Your task to perform on an android device: Clear all items from cart on amazon.com. Image 0: 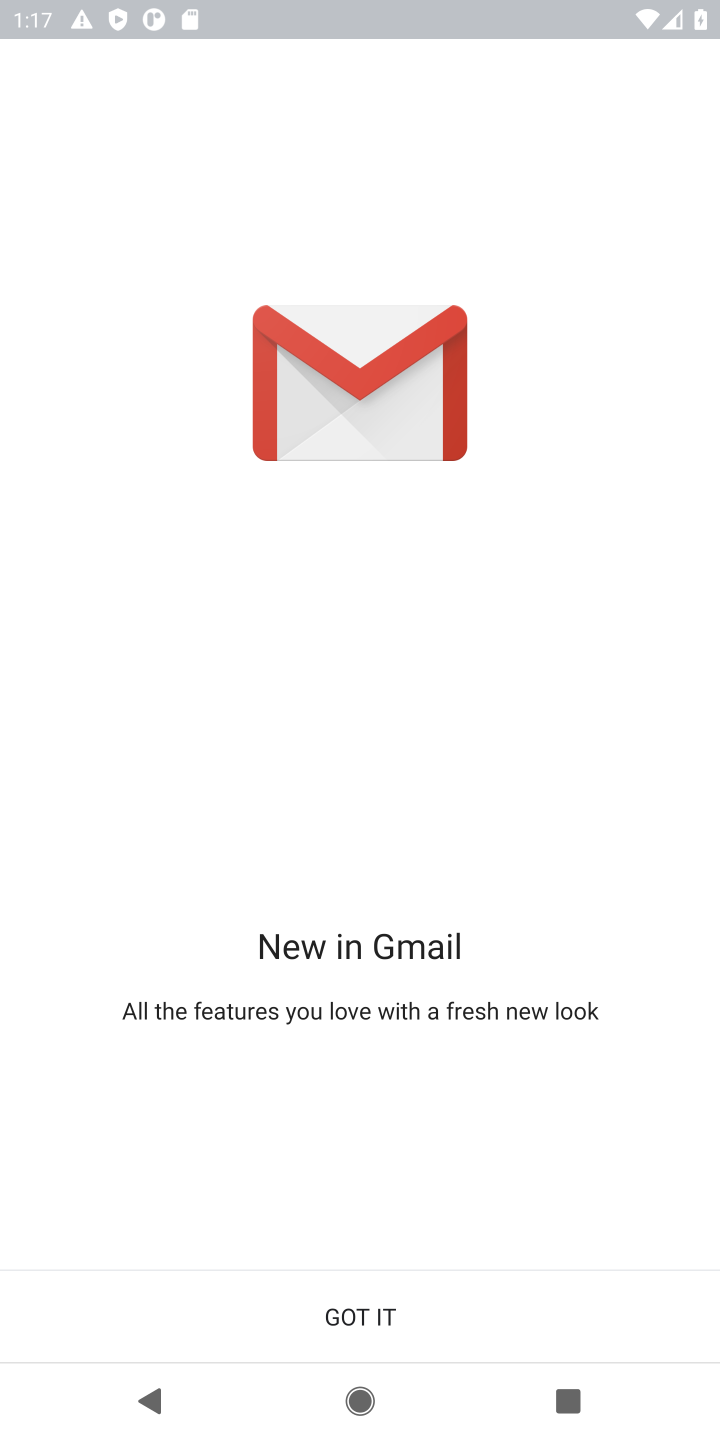
Step 0: press home button
Your task to perform on an android device: Clear all items from cart on amazon.com. Image 1: 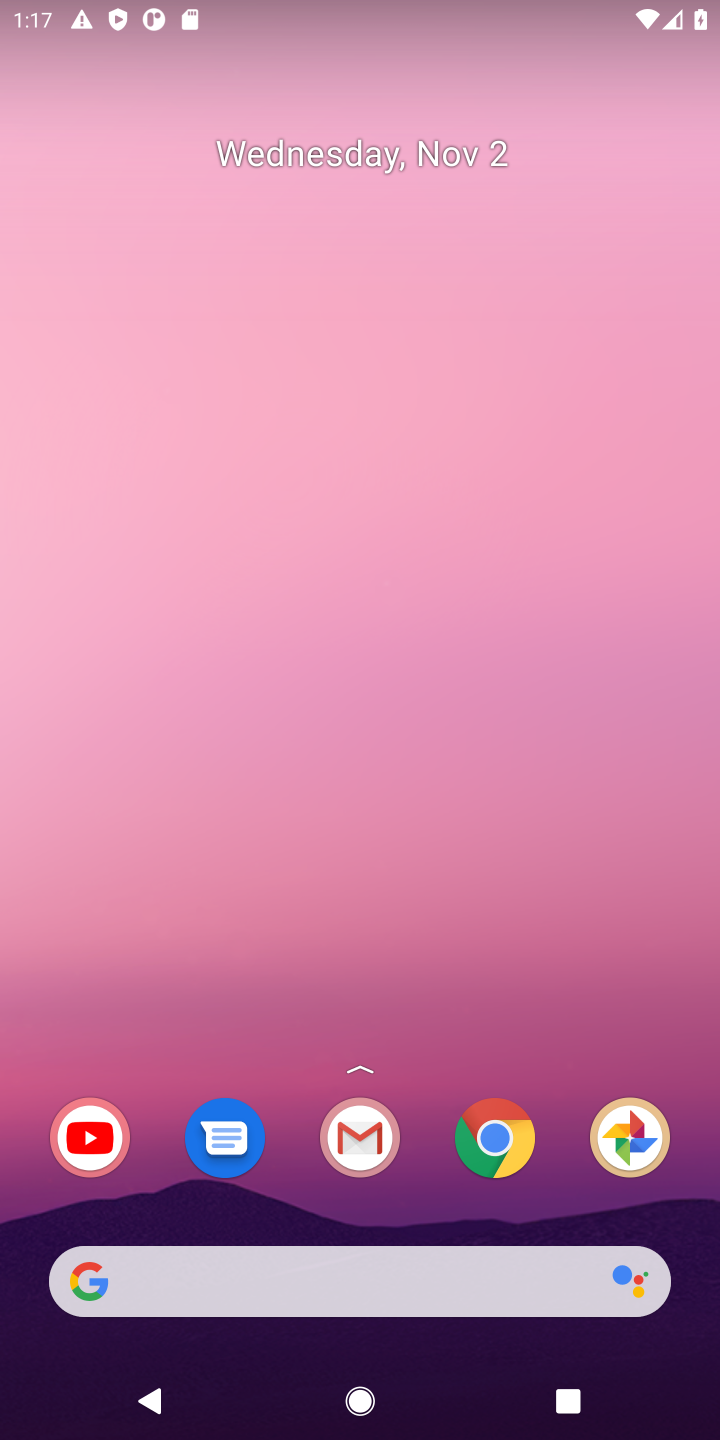
Step 1: click (147, 1277)
Your task to perform on an android device: Clear all items from cart on amazon.com. Image 2: 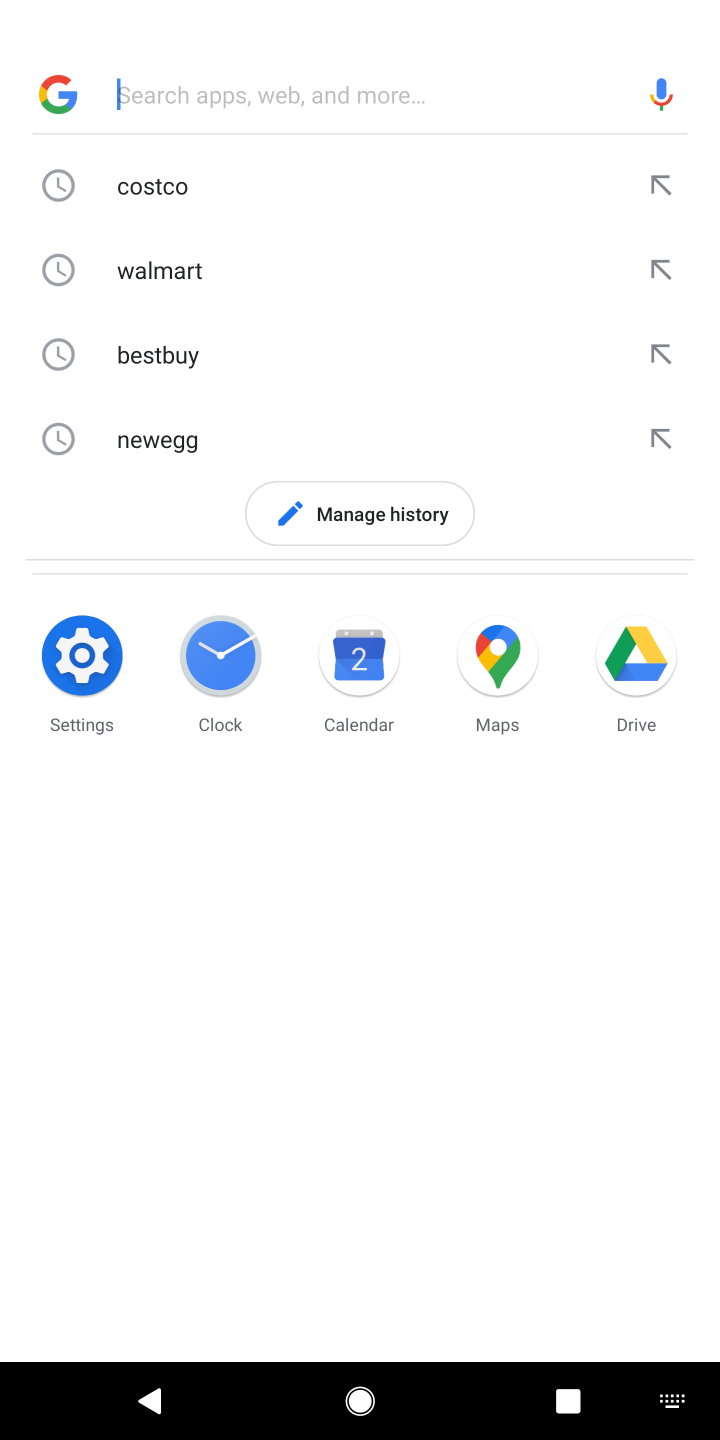
Step 2: type "amazon.com"
Your task to perform on an android device: Clear all items from cart on amazon.com. Image 3: 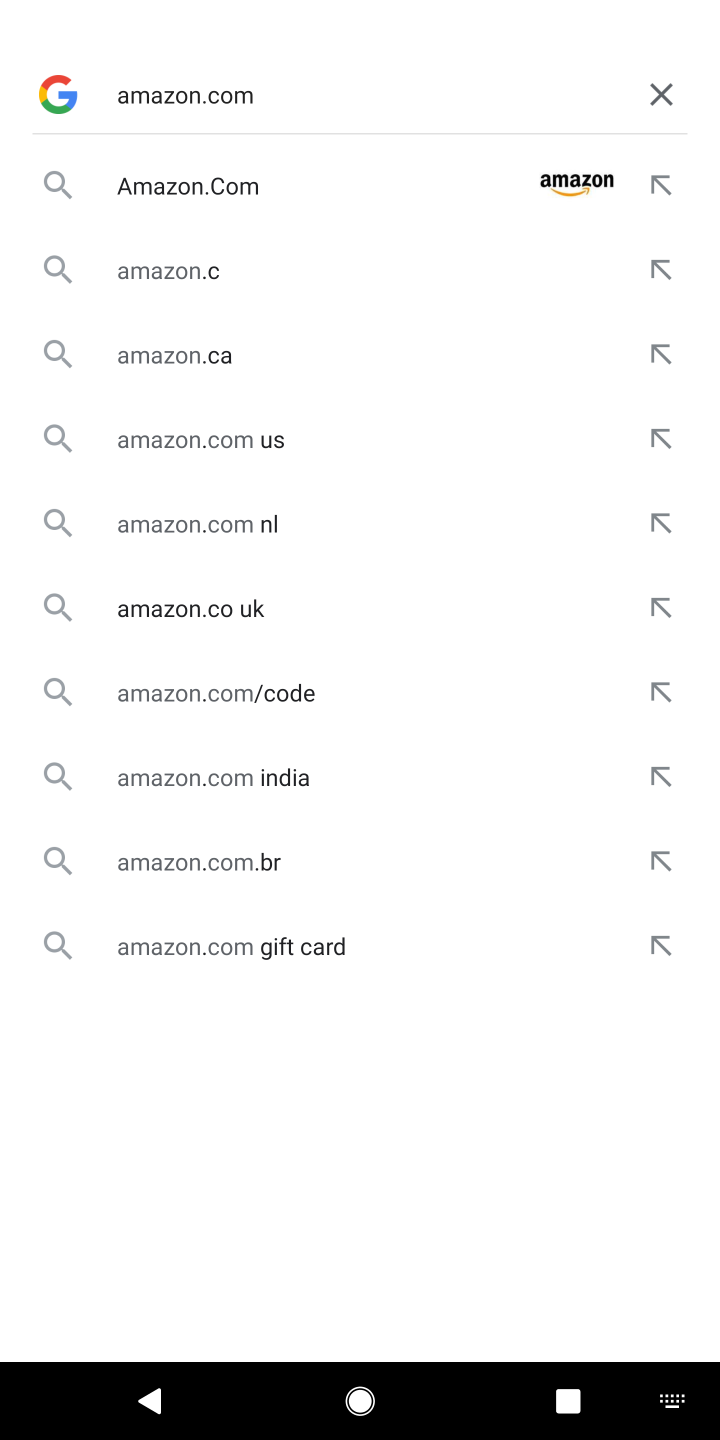
Step 3: press enter
Your task to perform on an android device: Clear all items from cart on amazon.com. Image 4: 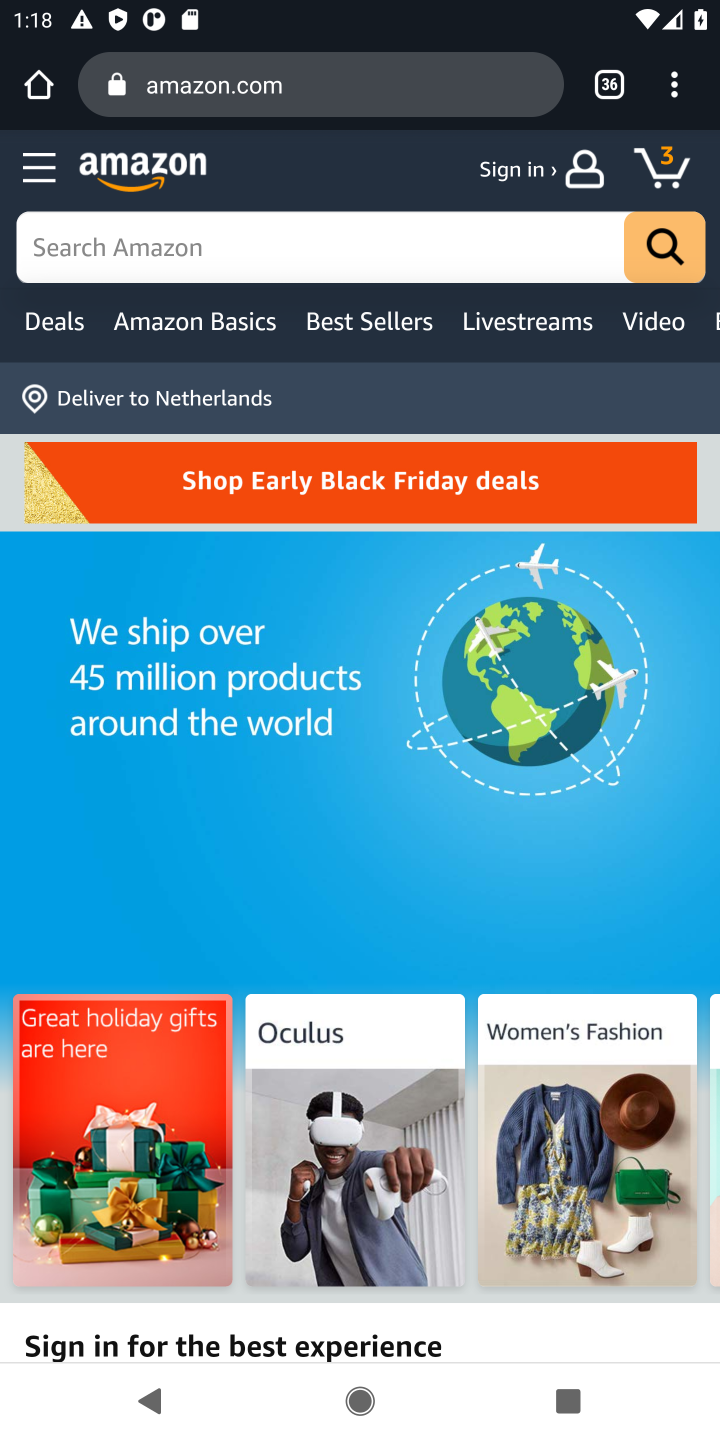
Step 4: click (669, 169)
Your task to perform on an android device: Clear all items from cart on amazon.com. Image 5: 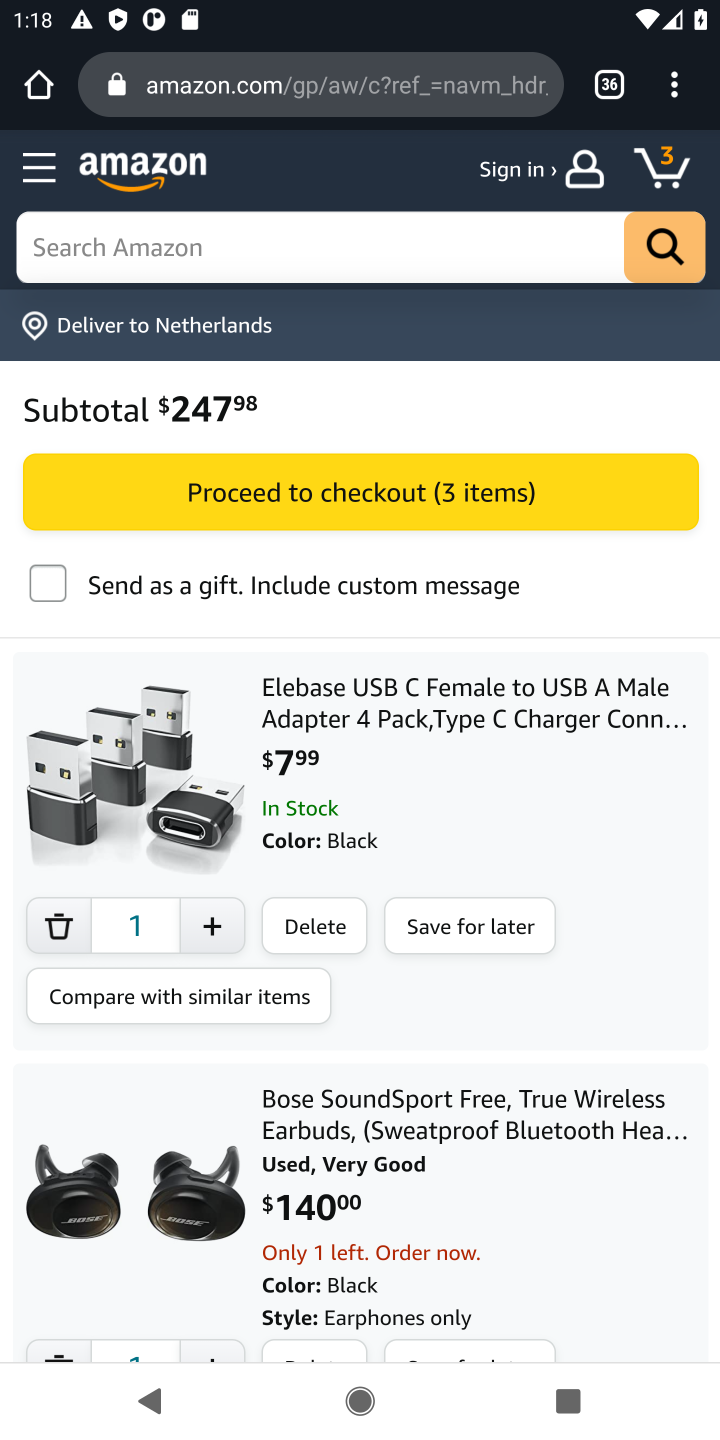
Step 5: click (55, 929)
Your task to perform on an android device: Clear all items from cart on amazon.com. Image 6: 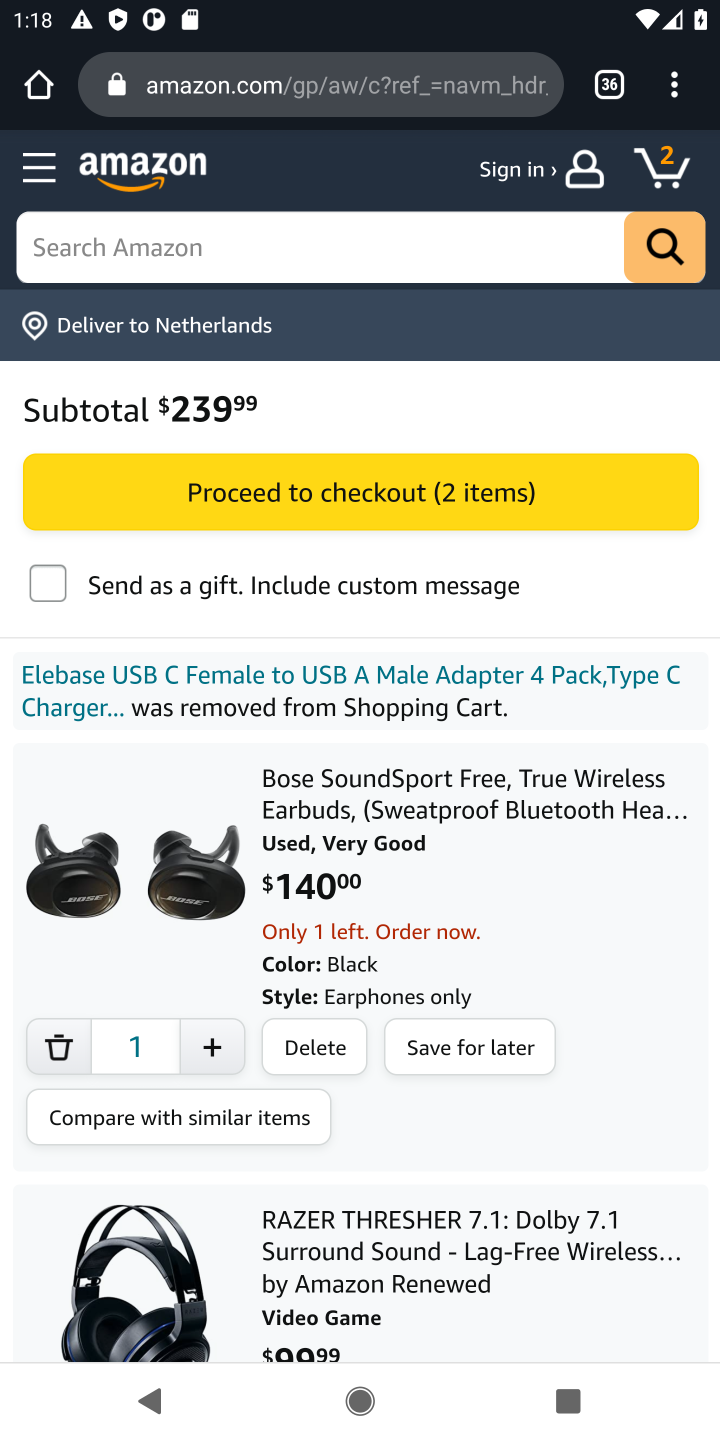
Step 6: click (58, 1038)
Your task to perform on an android device: Clear all items from cart on amazon.com. Image 7: 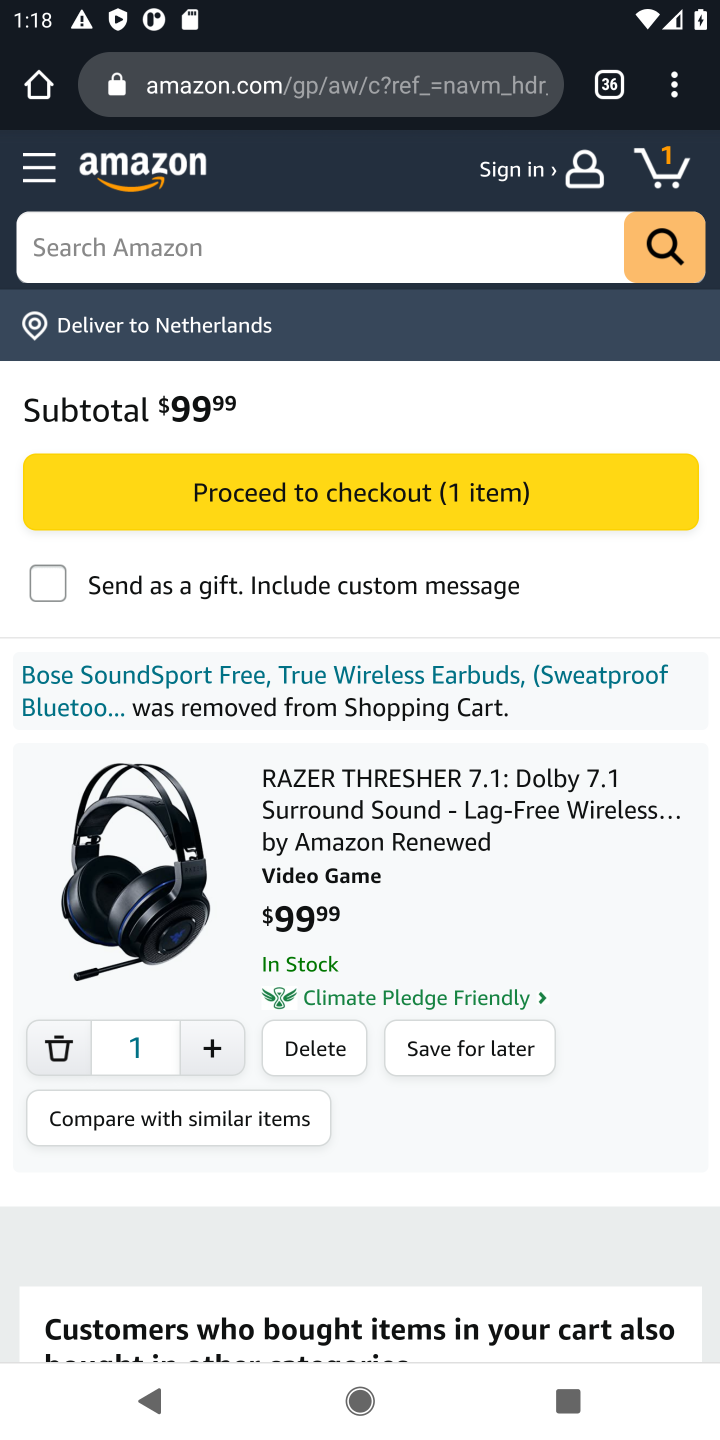
Step 7: click (58, 1038)
Your task to perform on an android device: Clear all items from cart on amazon.com. Image 8: 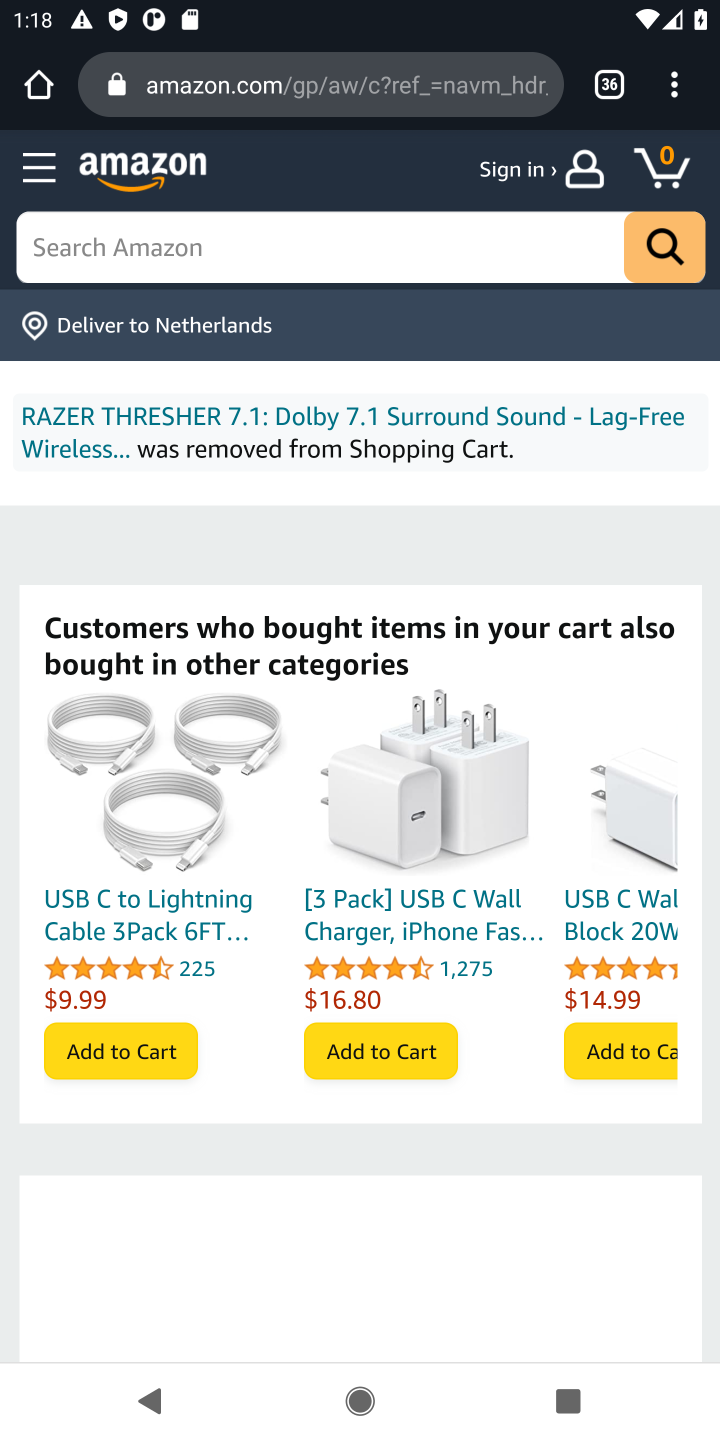
Step 8: task complete